Your task to perform on an android device: open the mobile data screen to see how much data has been used Image 0: 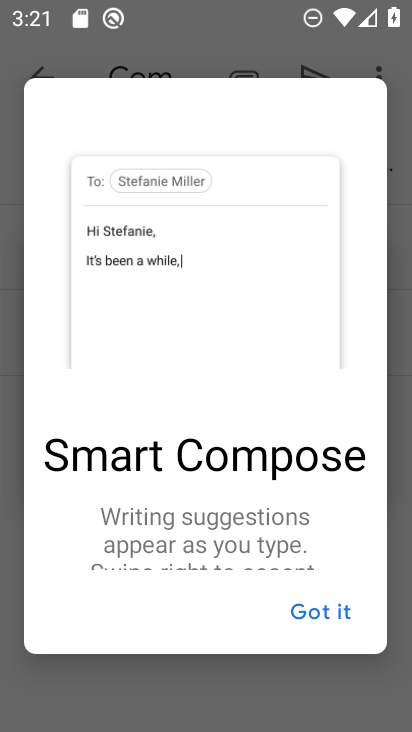
Step 0: press home button
Your task to perform on an android device: open the mobile data screen to see how much data has been used Image 1: 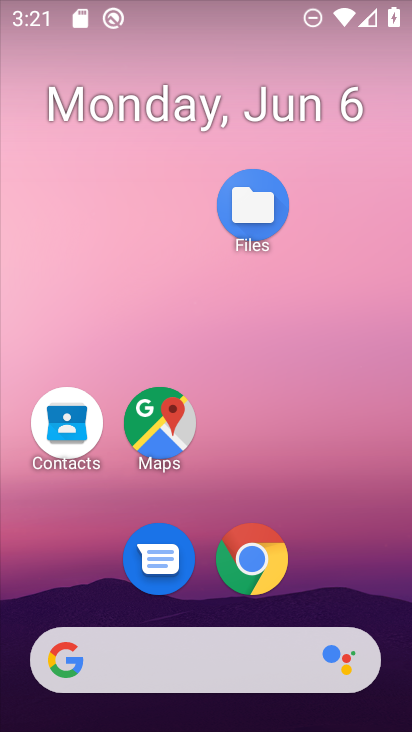
Step 1: drag from (170, 602) to (129, 119)
Your task to perform on an android device: open the mobile data screen to see how much data has been used Image 2: 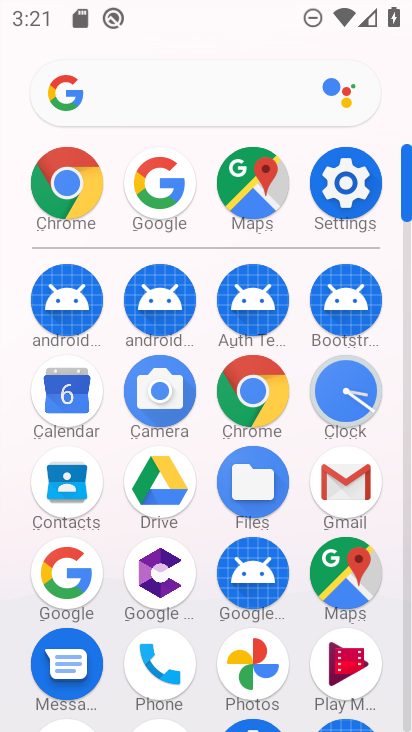
Step 2: click (365, 201)
Your task to perform on an android device: open the mobile data screen to see how much data has been used Image 3: 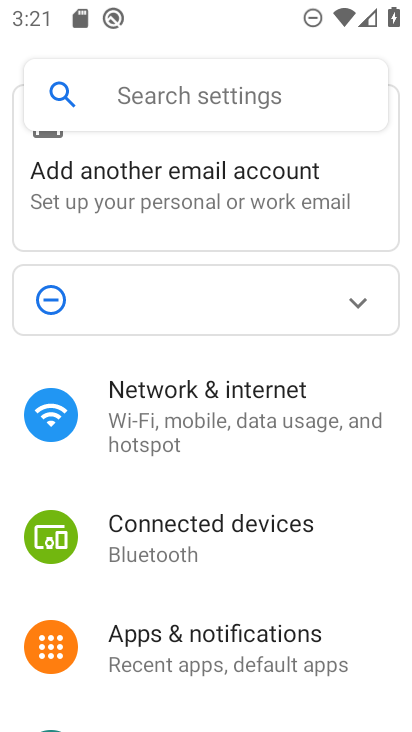
Step 3: click (184, 433)
Your task to perform on an android device: open the mobile data screen to see how much data has been used Image 4: 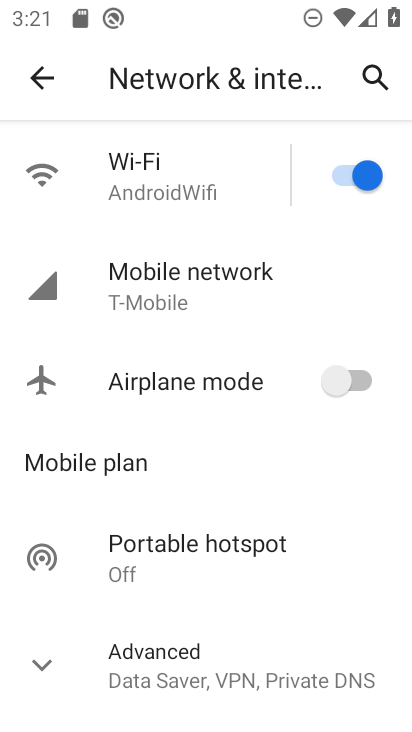
Step 4: click (167, 281)
Your task to perform on an android device: open the mobile data screen to see how much data has been used Image 5: 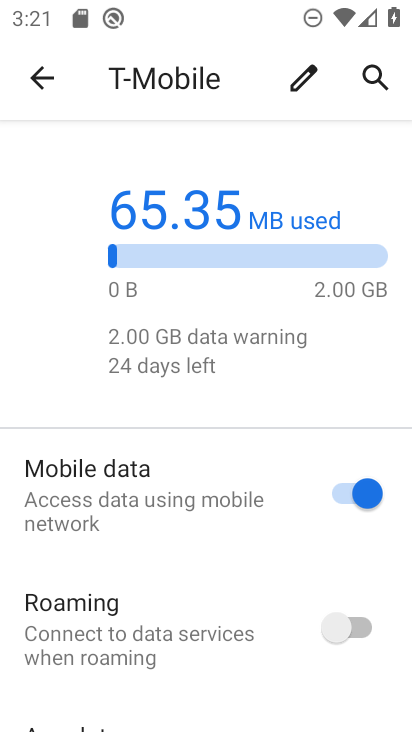
Step 5: drag from (145, 518) to (177, 312)
Your task to perform on an android device: open the mobile data screen to see how much data has been used Image 6: 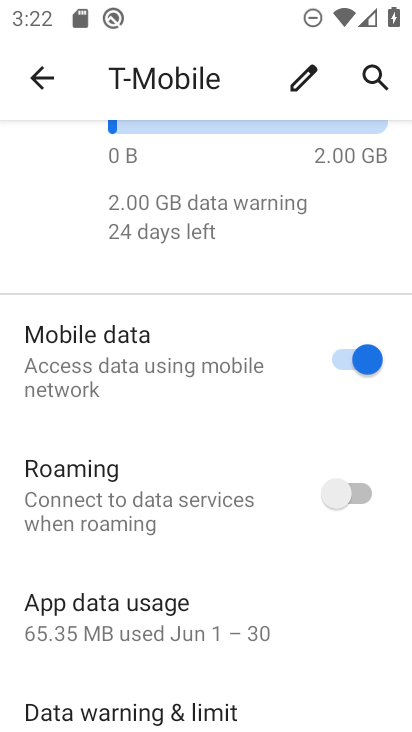
Step 6: click (225, 641)
Your task to perform on an android device: open the mobile data screen to see how much data has been used Image 7: 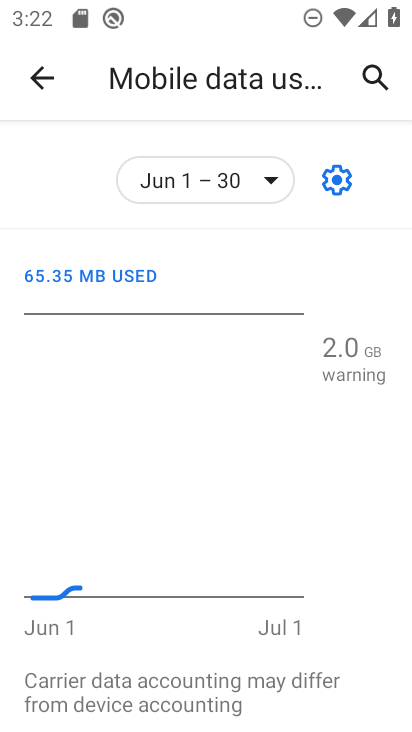
Step 7: task complete